Your task to perform on an android device: Check the weather Image 0: 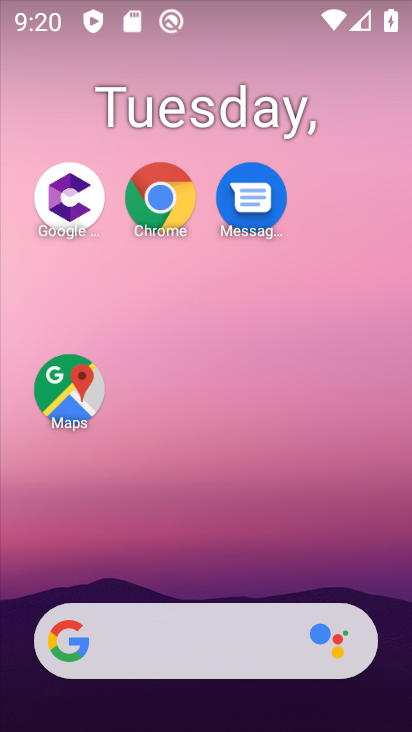
Step 0: drag from (174, 421) to (242, 43)
Your task to perform on an android device: Check the weather Image 1: 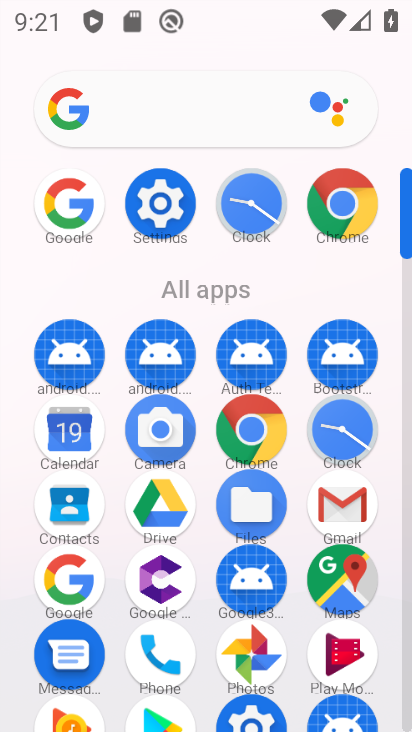
Step 1: press home button
Your task to perform on an android device: Check the weather Image 2: 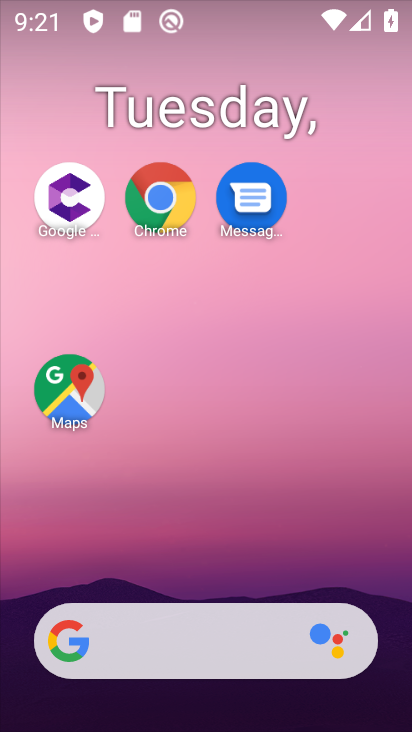
Step 2: click (202, 625)
Your task to perform on an android device: Check the weather Image 3: 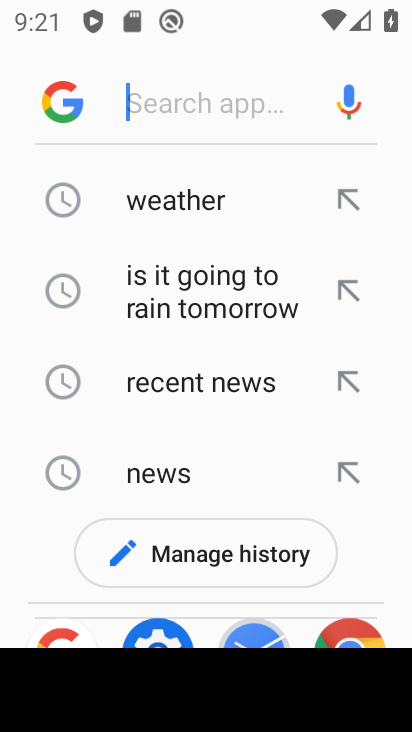
Step 3: click (211, 193)
Your task to perform on an android device: Check the weather Image 4: 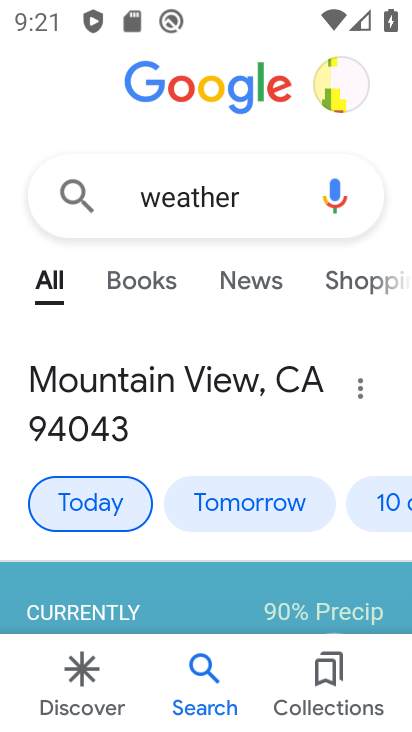
Step 4: task complete